Your task to perform on an android device: See recent photos Image 0: 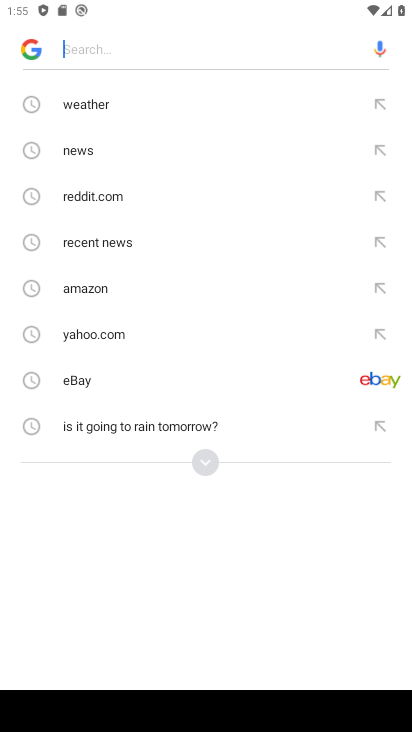
Step 0: press home button
Your task to perform on an android device: See recent photos Image 1: 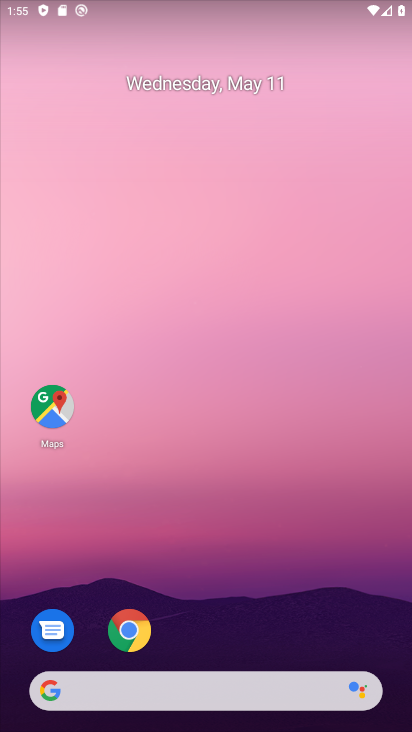
Step 1: drag from (192, 726) to (200, 184)
Your task to perform on an android device: See recent photos Image 2: 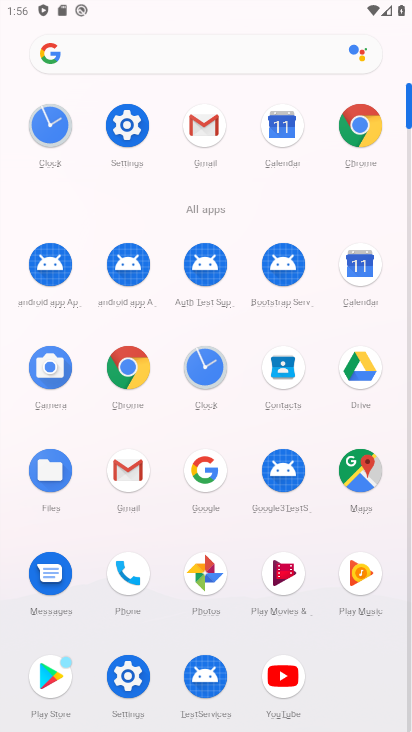
Step 2: click (199, 572)
Your task to perform on an android device: See recent photos Image 3: 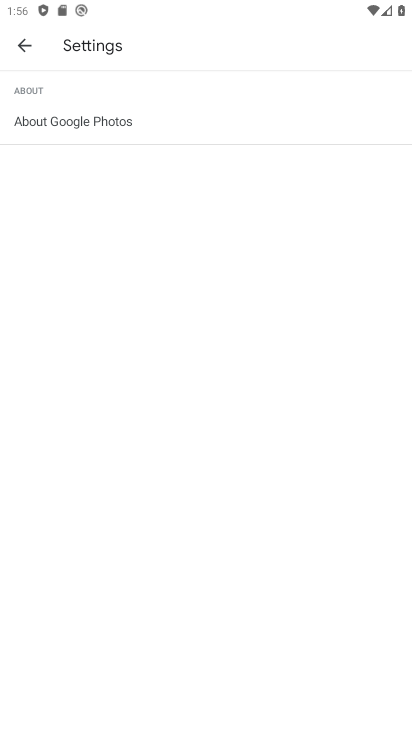
Step 3: click (24, 45)
Your task to perform on an android device: See recent photos Image 4: 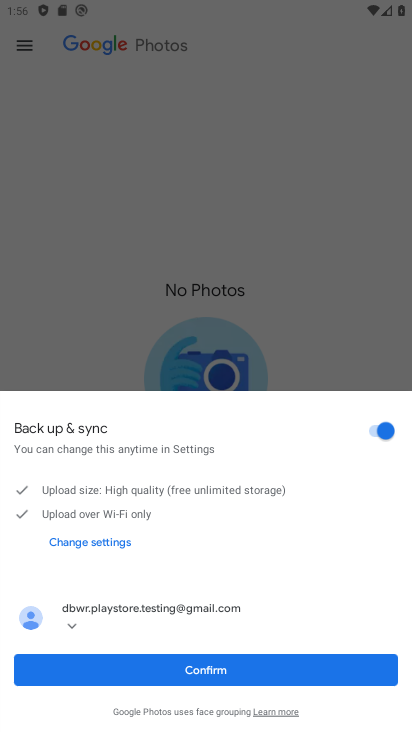
Step 4: click (212, 672)
Your task to perform on an android device: See recent photos Image 5: 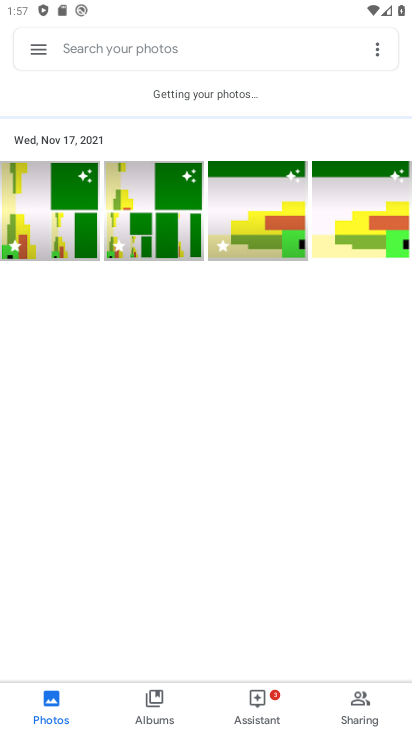
Step 5: click (51, 216)
Your task to perform on an android device: See recent photos Image 6: 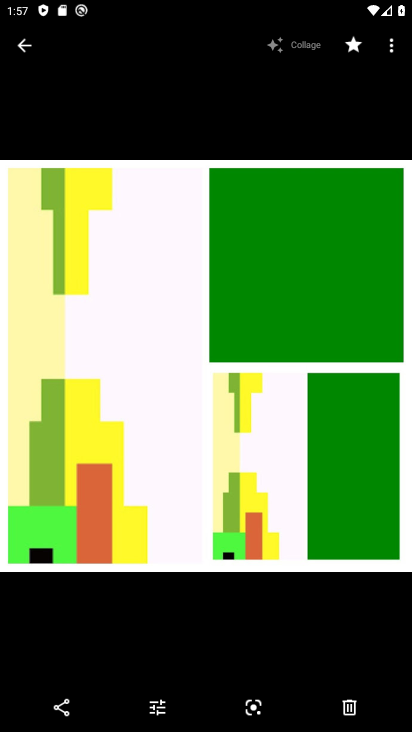
Step 6: task complete